Your task to perform on an android device: turn on showing notifications on the lock screen Image 0: 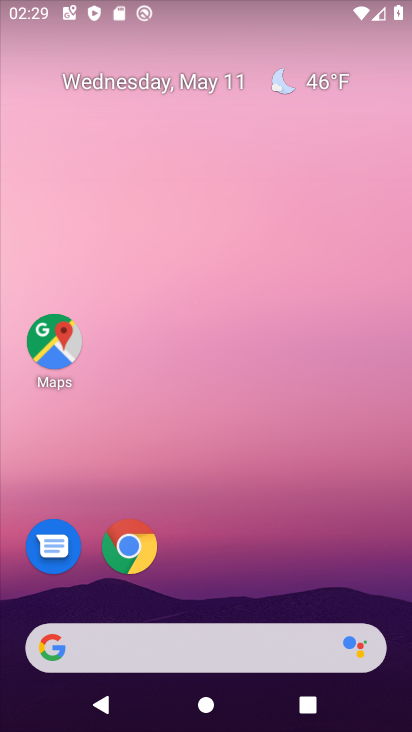
Step 0: drag from (225, 470) to (273, 61)
Your task to perform on an android device: turn on showing notifications on the lock screen Image 1: 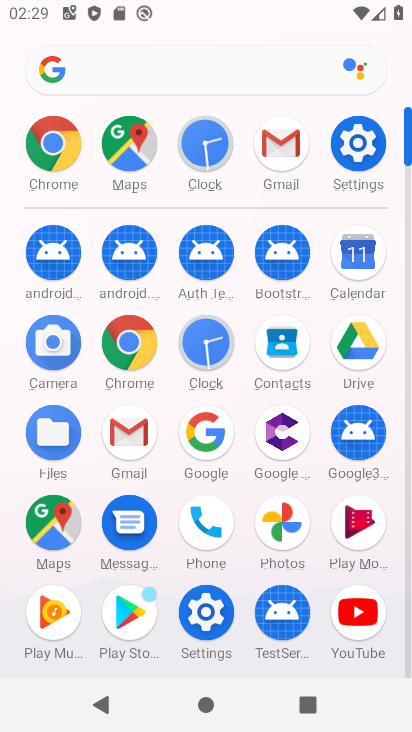
Step 1: click (211, 629)
Your task to perform on an android device: turn on showing notifications on the lock screen Image 2: 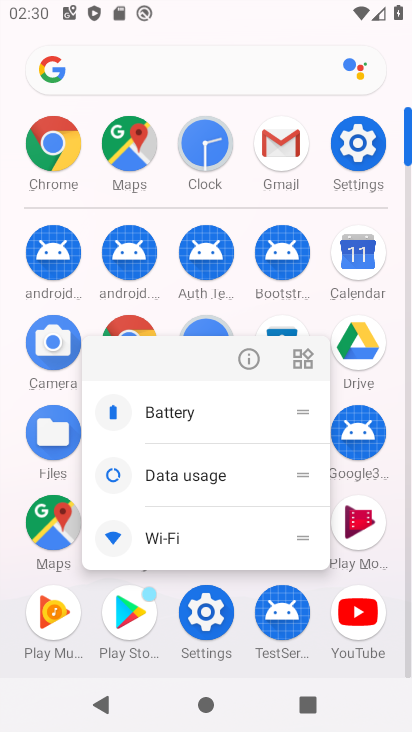
Step 2: click (247, 355)
Your task to perform on an android device: turn on showing notifications on the lock screen Image 3: 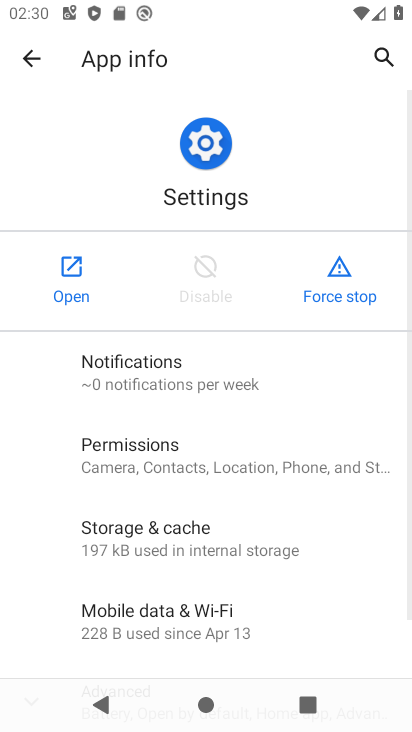
Step 3: click (67, 284)
Your task to perform on an android device: turn on showing notifications on the lock screen Image 4: 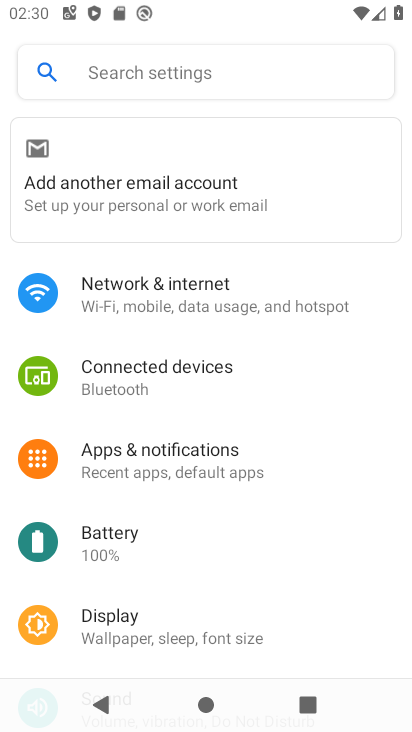
Step 4: click (121, 449)
Your task to perform on an android device: turn on showing notifications on the lock screen Image 5: 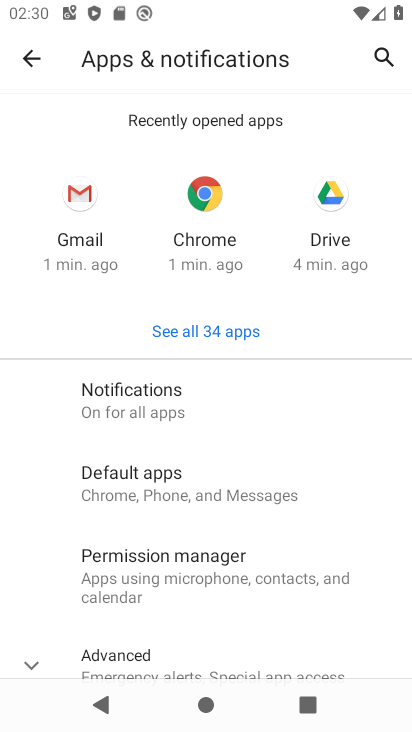
Step 5: click (179, 386)
Your task to perform on an android device: turn on showing notifications on the lock screen Image 6: 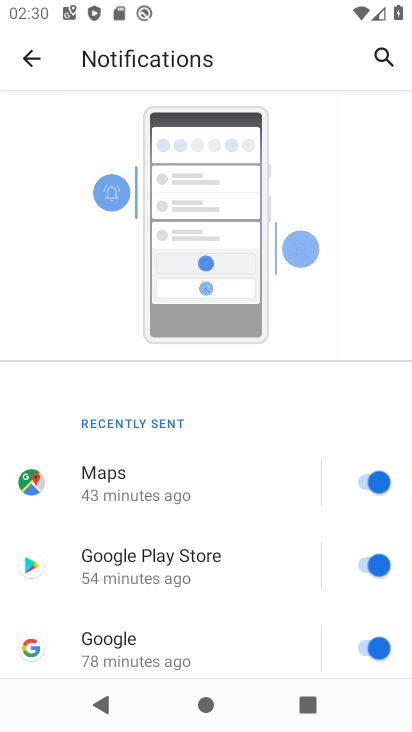
Step 6: drag from (154, 609) to (291, 238)
Your task to perform on an android device: turn on showing notifications on the lock screen Image 7: 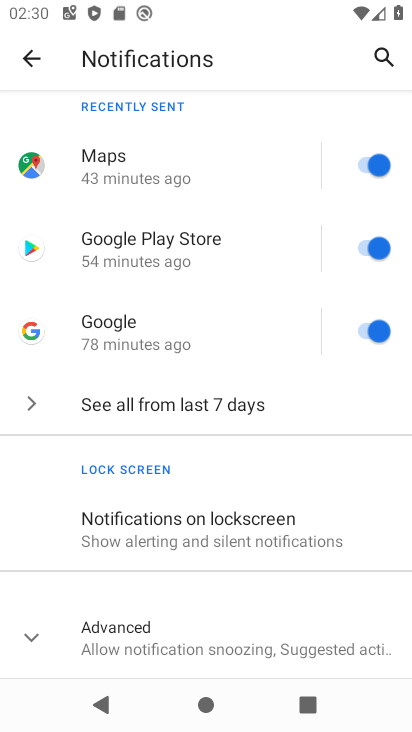
Step 7: click (216, 515)
Your task to perform on an android device: turn on showing notifications on the lock screen Image 8: 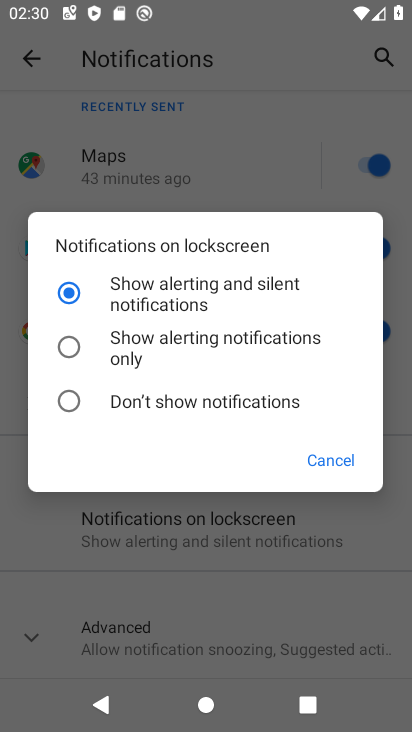
Step 8: click (132, 338)
Your task to perform on an android device: turn on showing notifications on the lock screen Image 9: 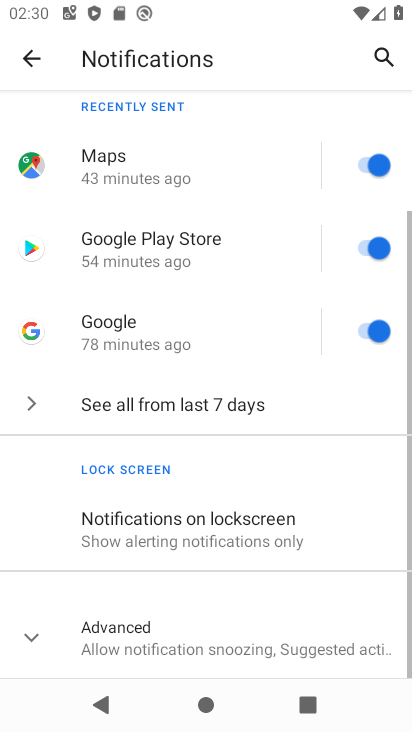
Step 9: task complete